Your task to perform on an android device: Open Youtube and go to "Your channel" Image 0: 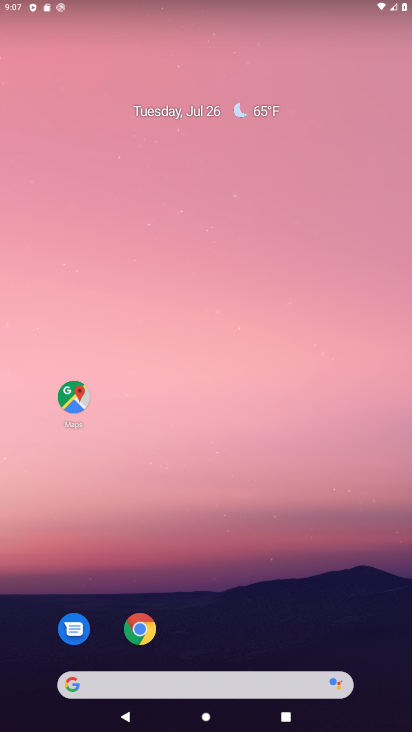
Step 0: drag from (312, 390) to (332, 3)
Your task to perform on an android device: Open Youtube and go to "Your channel" Image 1: 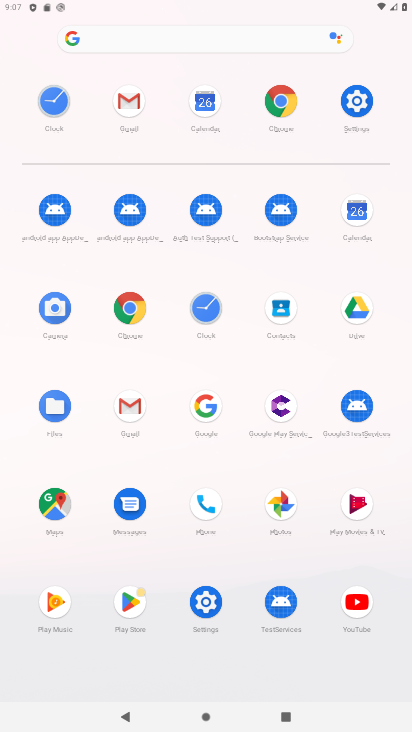
Step 1: click (365, 604)
Your task to perform on an android device: Open Youtube and go to "Your channel" Image 2: 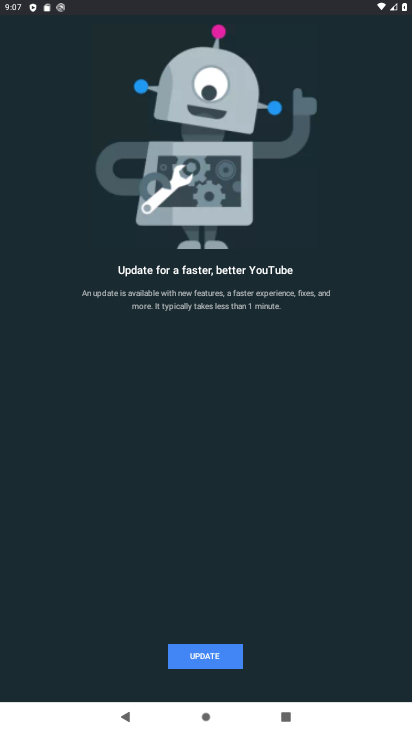
Step 2: click (175, 672)
Your task to perform on an android device: Open Youtube and go to "Your channel" Image 3: 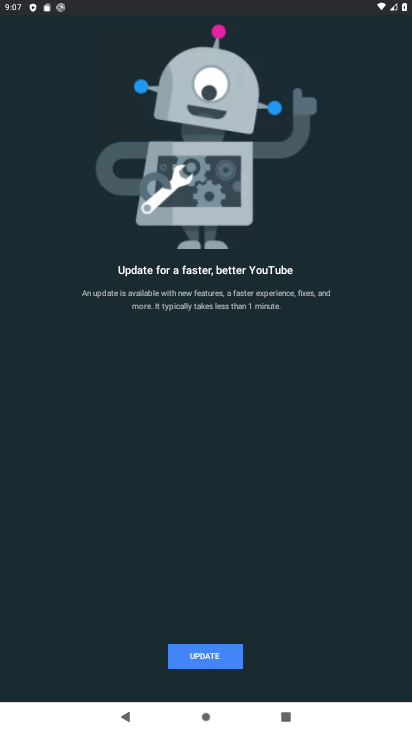
Step 3: click (185, 666)
Your task to perform on an android device: Open Youtube and go to "Your channel" Image 4: 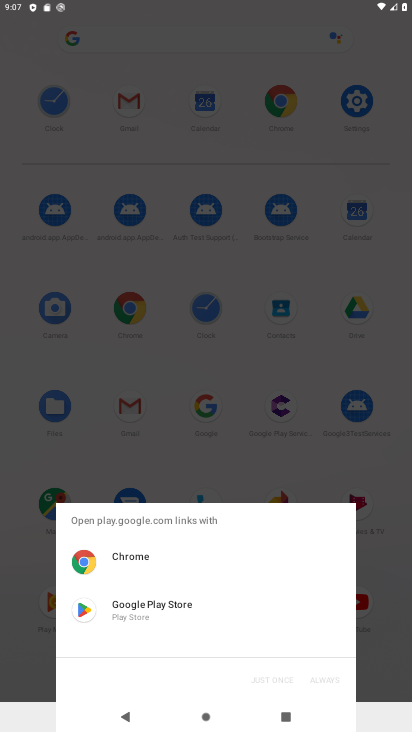
Step 4: click (188, 620)
Your task to perform on an android device: Open Youtube and go to "Your channel" Image 5: 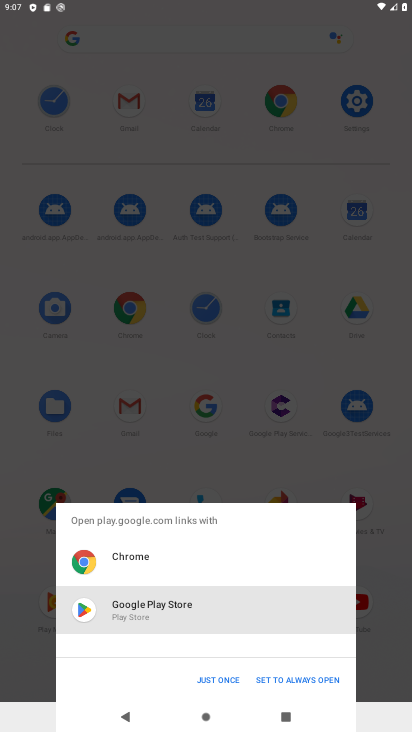
Step 5: click (219, 670)
Your task to perform on an android device: Open Youtube and go to "Your channel" Image 6: 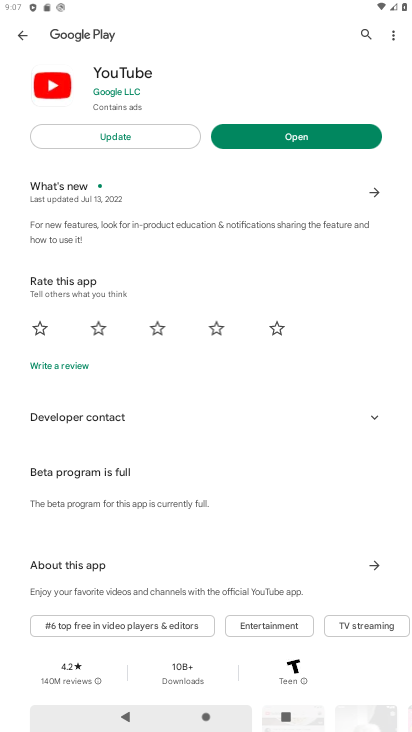
Step 6: click (158, 131)
Your task to perform on an android device: Open Youtube and go to "Your channel" Image 7: 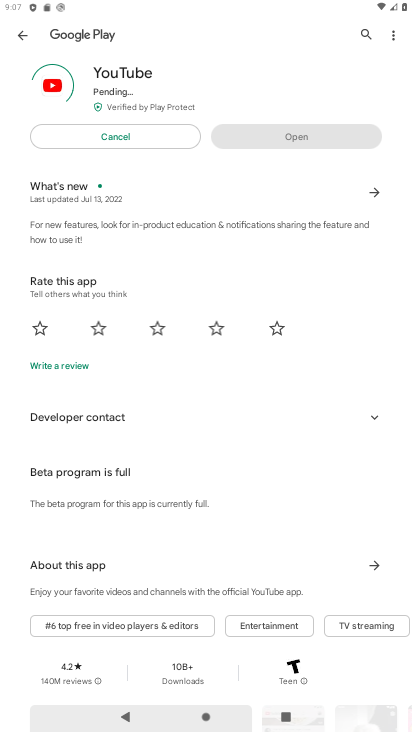
Step 7: task complete